Your task to perform on an android device: Open Android settings Image 0: 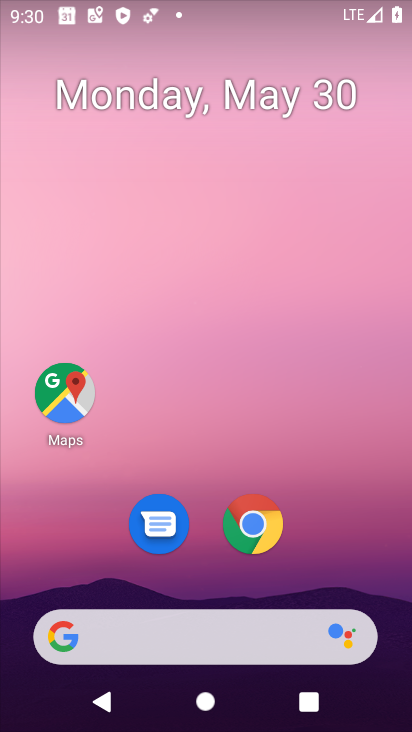
Step 0: drag from (321, 544) to (306, 0)
Your task to perform on an android device: Open Android settings Image 1: 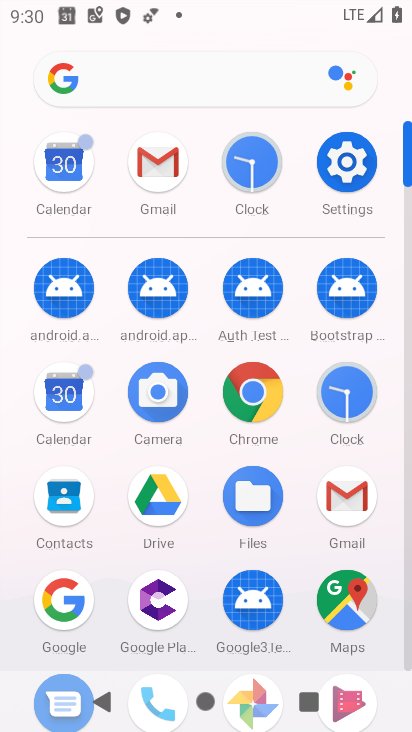
Step 1: click (348, 153)
Your task to perform on an android device: Open Android settings Image 2: 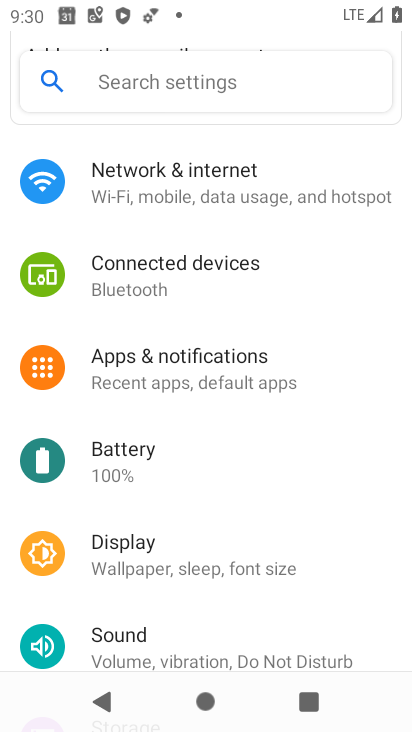
Step 2: drag from (290, 576) to (260, 6)
Your task to perform on an android device: Open Android settings Image 3: 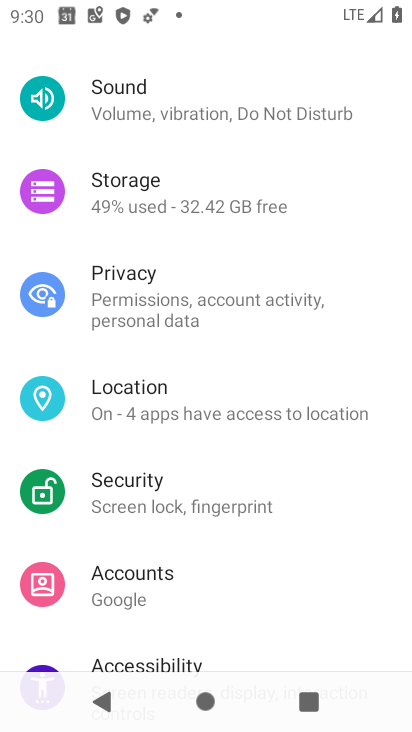
Step 3: drag from (255, 557) to (232, 123)
Your task to perform on an android device: Open Android settings Image 4: 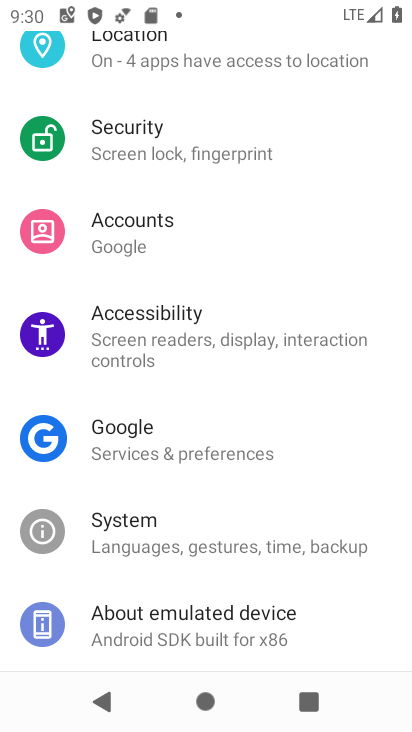
Step 4: click (222, 616)
Your task to perform on an android device: Open Android settings Image 5: 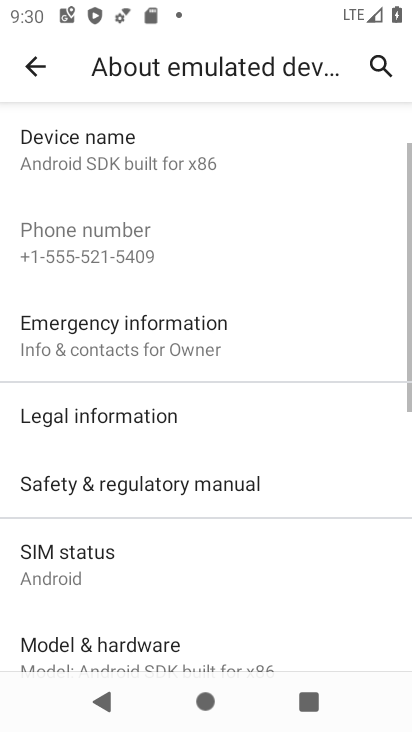
Step 5: task complete